Your task to perform on an android device: Go to privacy settings Image 0: 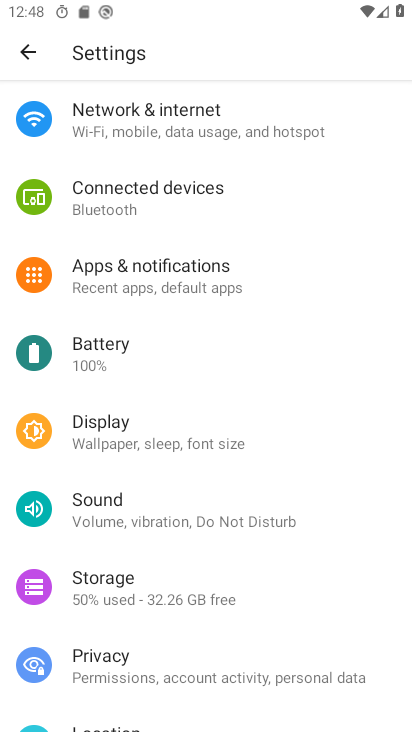
Step 0: drag from (156, 435) to (214, 127)
Your task to perform on an android device: Go to privacy settings Image 1: 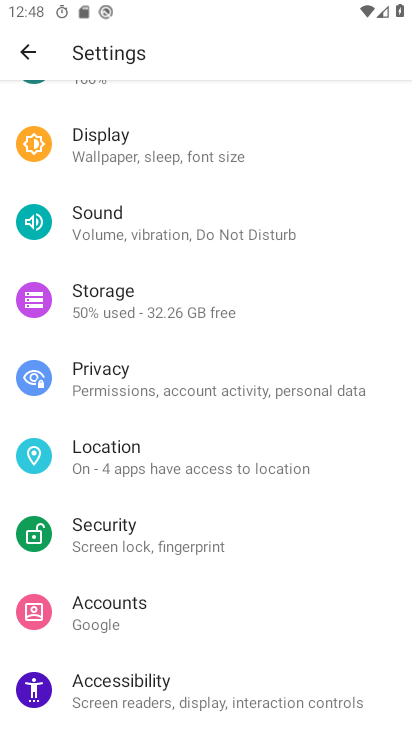
Step 1: click (147, 387)
Your task to perform on an android device: Go to privacy settings Image 2: 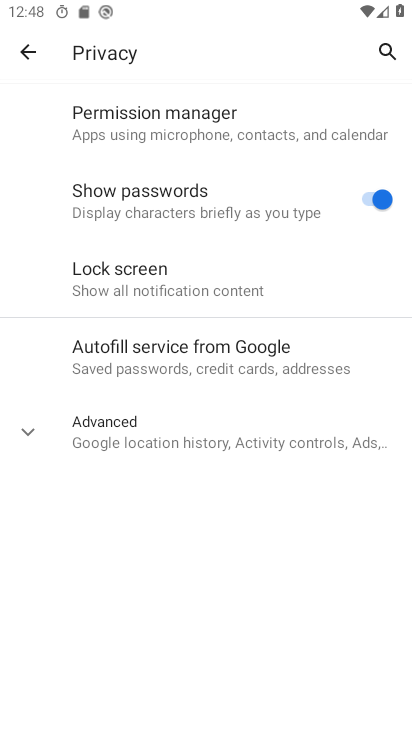
Step 2: task complete